Your task to perform on an android device: Is it going to rain today? Image 0: 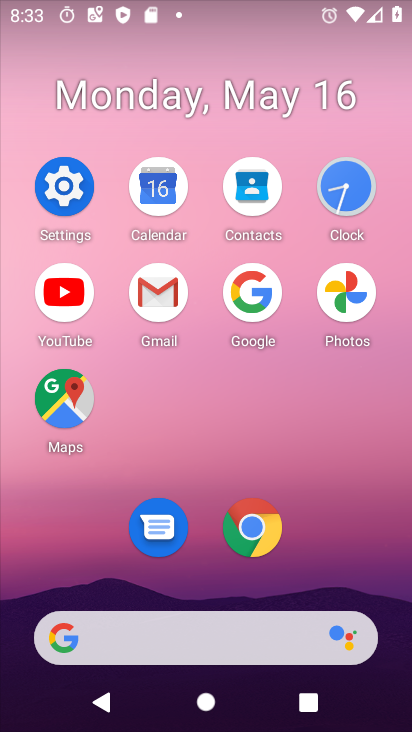
Step 0: click (260, 291)
Your task to perform on an android device: Is it going to rain today? Image 1: 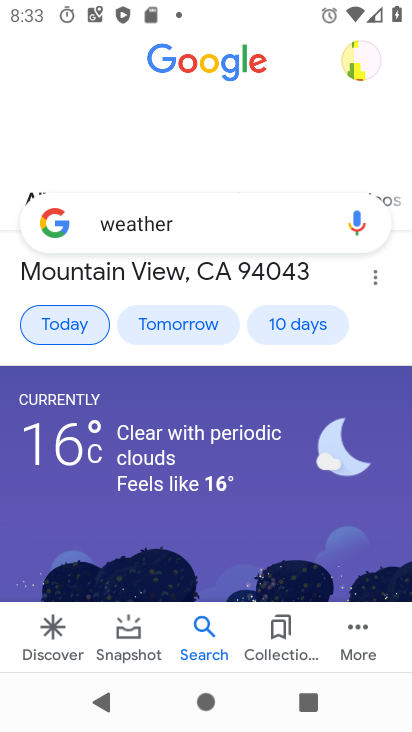
Step 1: task complete